Your task to perform on an android device: Open the map Image 0: 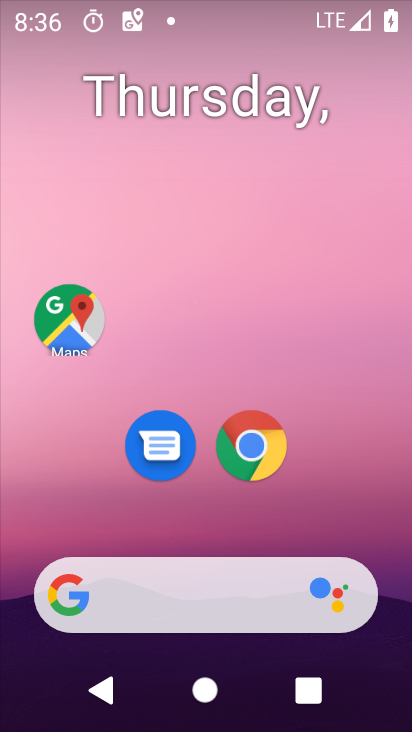
Step 0: drag from (206, 501) to (197, 121)
Your task to perform on an android device: Open the map Image 1: 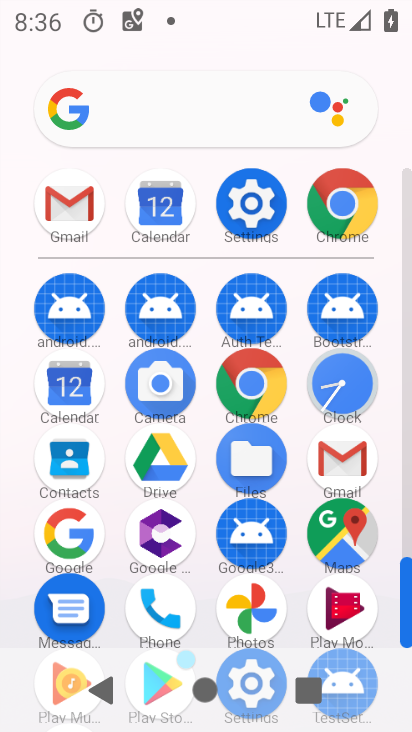
Step 1: click (347, 521)
Your task to perform on an android device: Open the map Image 2: 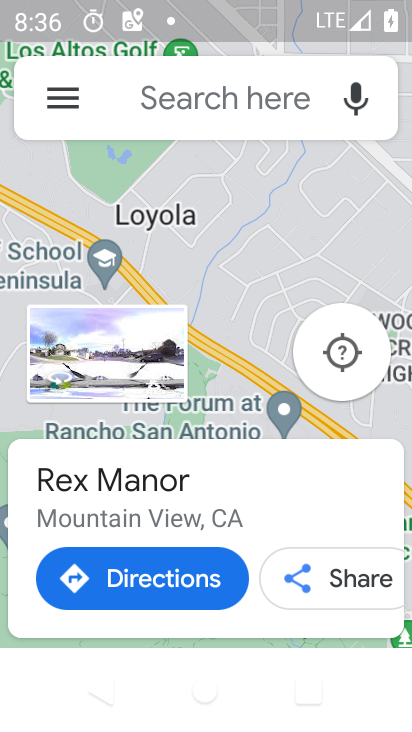
Step 2: task complete